Your task to perform on an android device: Go to Google maps Image 0: 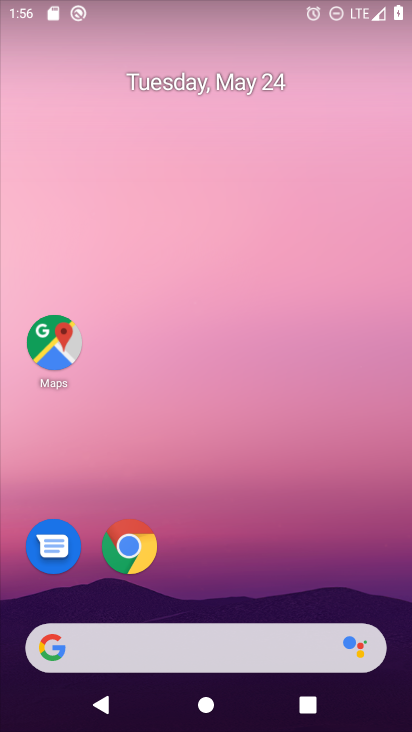
Step 0: drag from (253, 276) to (283, 63)
Your task to perform on an android device: Go to Google maps Image 1: 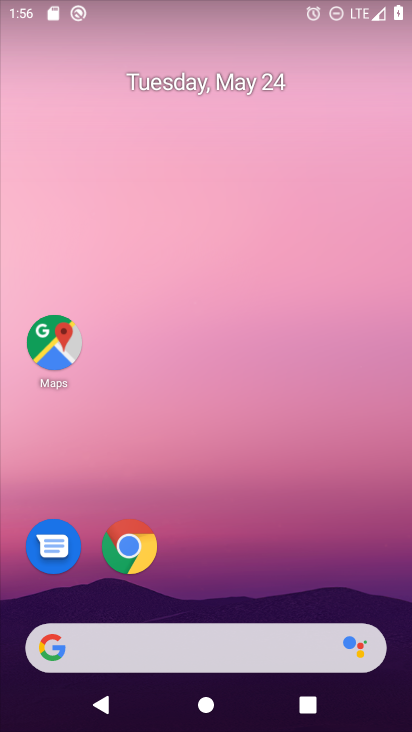
Step 1: drag from (311, 586) to (309, 11)
Your task to perform on an android device: Go to Google maps Image 2: 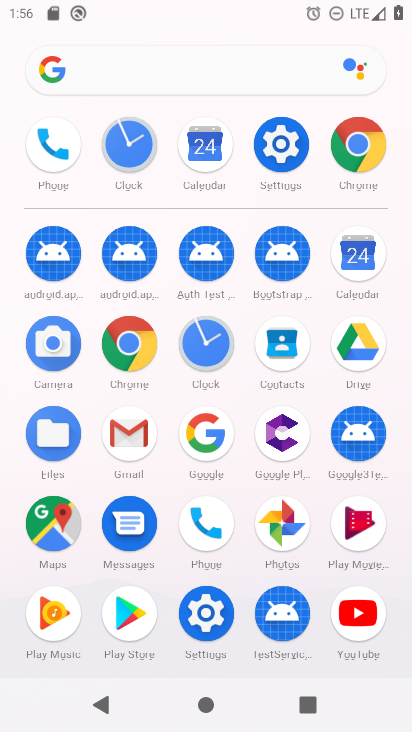
Step 2: click (55, 524)
Your task to perform on an android device: Go to Google maps Image 3: 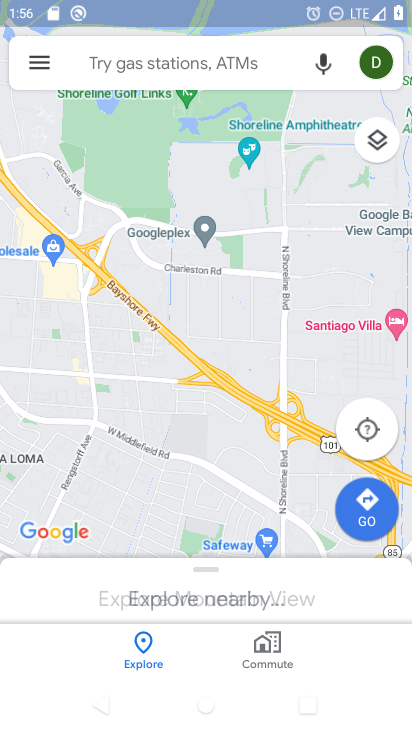
Step 3: task complete